Your task to perform on an android device: see creations saved in the google photos Image 0: 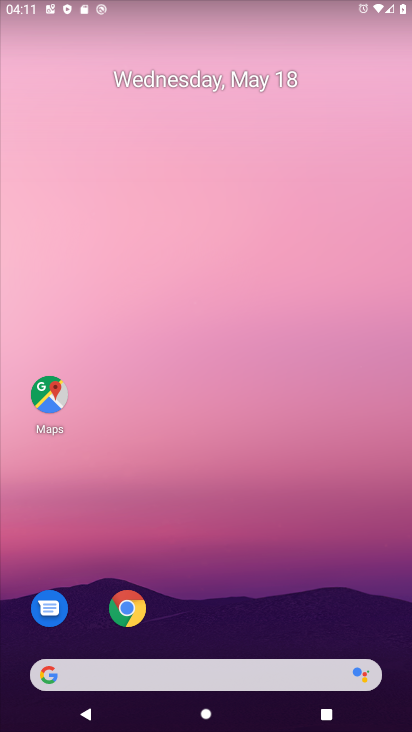
Step 0: drag from (170, 394) to (173, 94)
Your task to perform on an android device: see creations saved in the google photos Image 1: 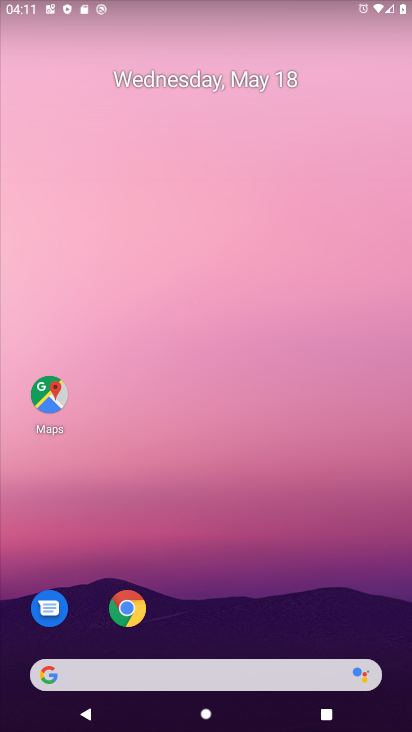
Step 1: drag from (192, 606) to (396, 190)
Your task to perform on an android device: see creations saved in the google photos Image 2: 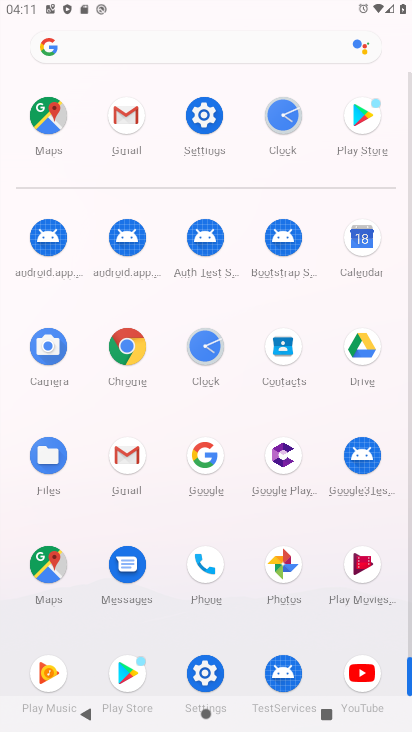
Step 2: click (292, 551)
Your task to perform on an android device: see creations saved in the google photos Image 3: 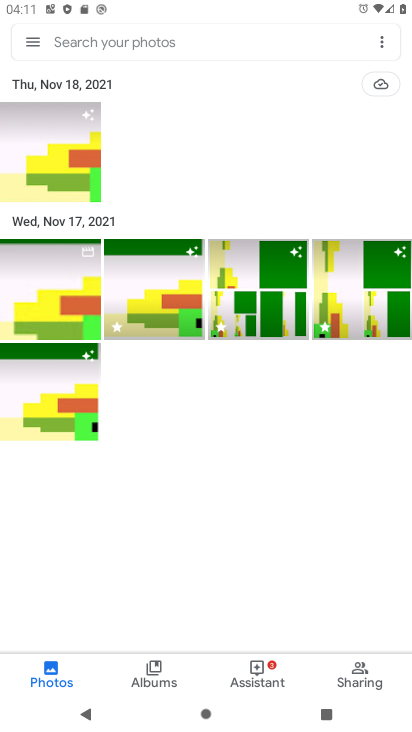
Step 3: click (258, 690)
Your task to perform on an android device: see creations saved in the google photos Image 4: 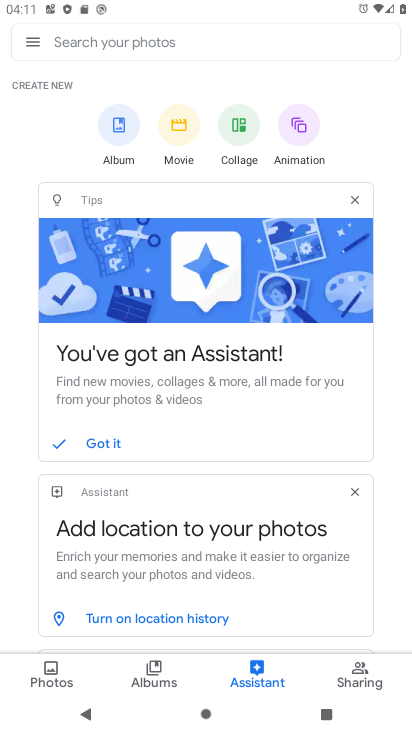
Step 4: task complete